Your task to perform on an android device: Go to Yahoo.com Image 0: 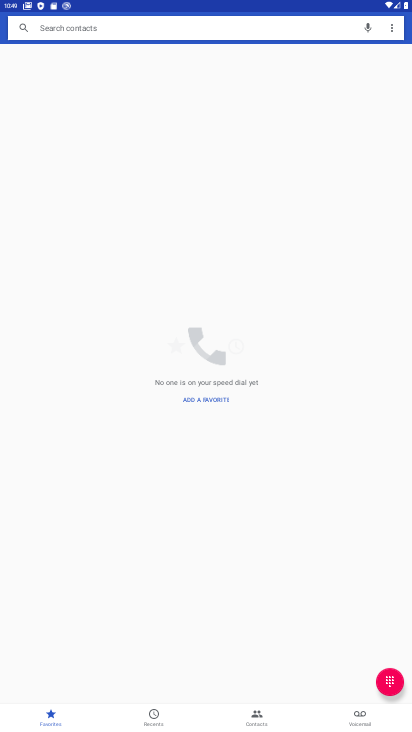
Step 0: press home button
Your task to perform on an android device: Go to Yahoo.com Image 1: 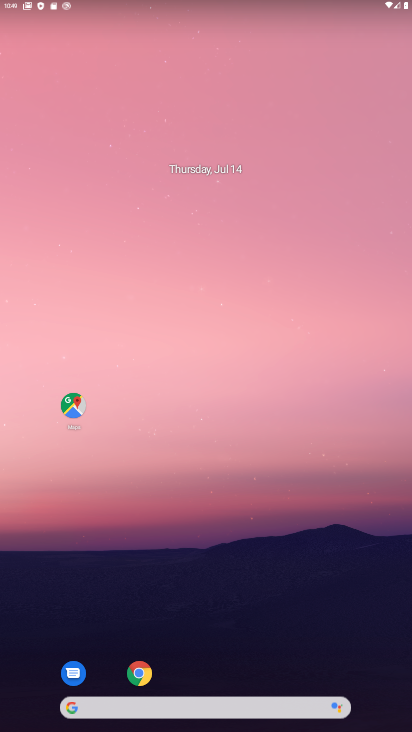
Step 1: drag from (221, 684) to (273, 291)
Your task to perform on an android device: Go to Yahoo.com Image 2: 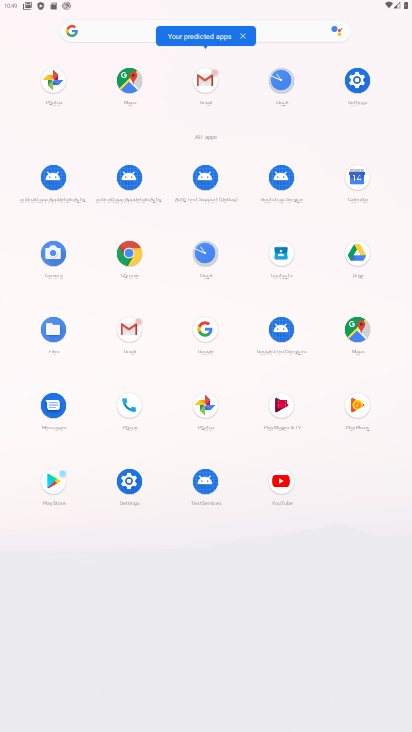
Step 2: click (125, 250)
Your task to perform on an android device: Go to Yahoo.com Image 3: 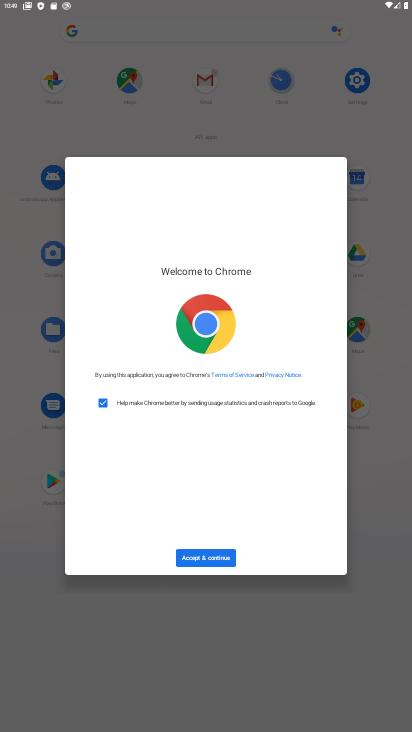
Step 3: click (191, 578)
Your task to perform on an android device: Go to Yahoo.com Image 4: 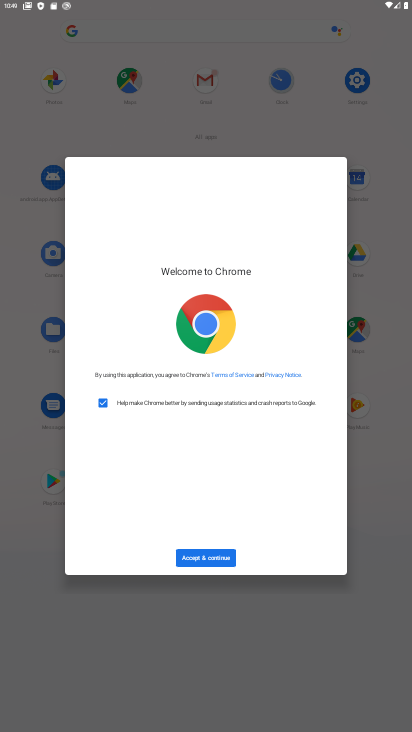
Step 4: click (217, 561)
Your task to perform on an android device: Go to Yahoo.com Image 5: 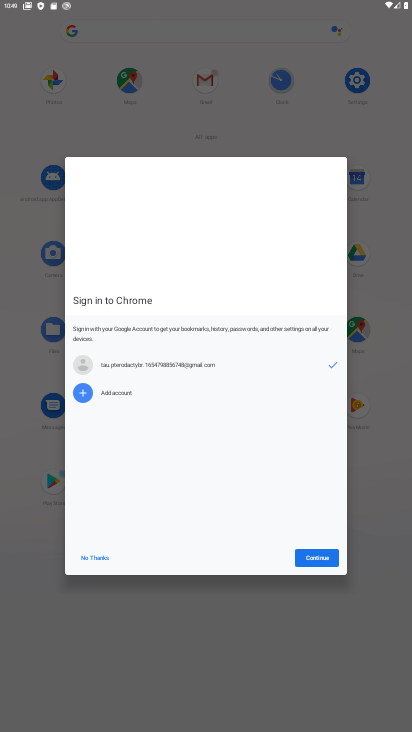
Step 5: click (330, 554)
Your task to perform on an android device: Go to Yahoo.com Image 6: 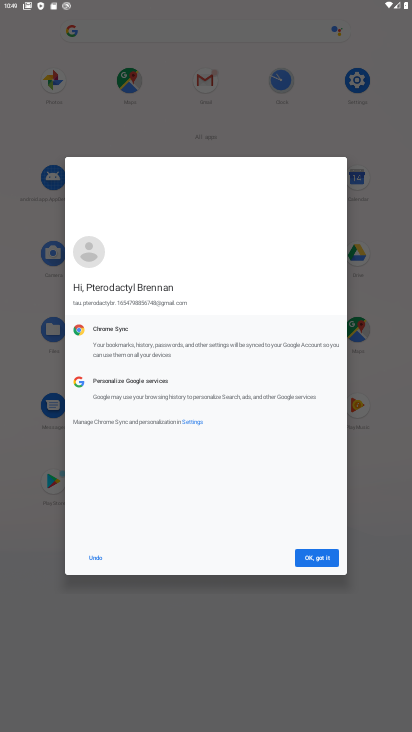
Step 6: click (318, 554)
Your task to perform on an android device: Go to Yahoo.com Image 7: 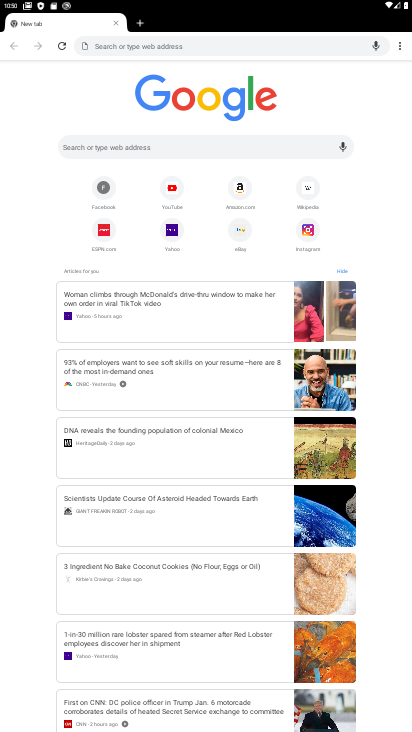
Step 7: click (177, 232)
Your task to perform on an android device: Go to Yahoo.com Image 8: 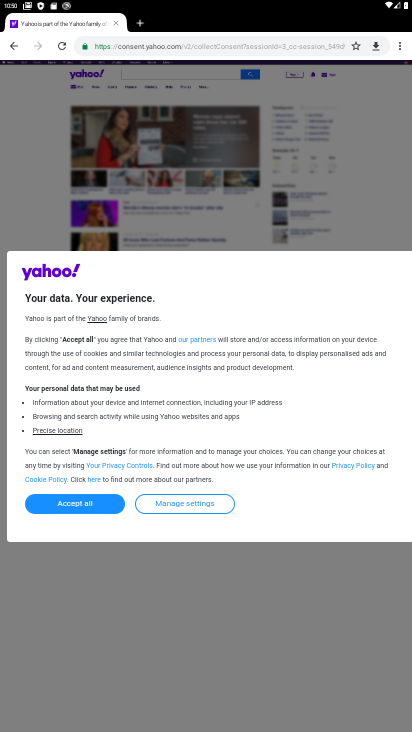
Step 8: click (79, 490)
Your task to perform on an android device: Go to Yahoo.com Image 9: 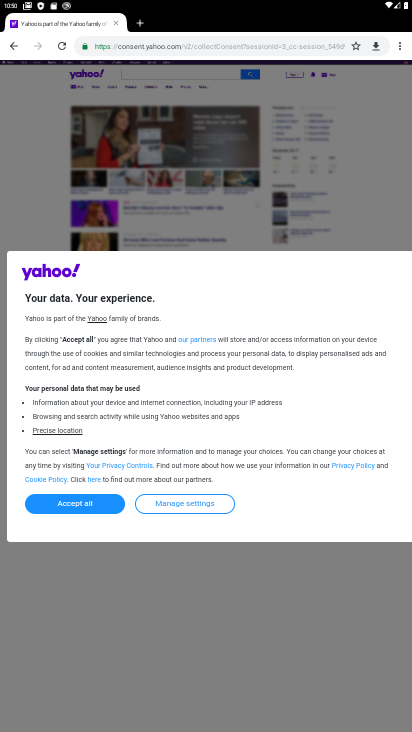
Step 9: click (95, 491)
Your task to perform on an android device: Go to Yahoo.com Image 10: 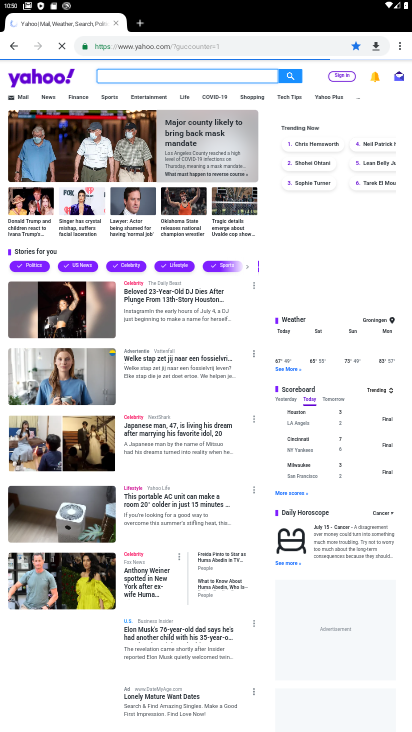
Step 10: task complete